Your task to perform on an android device: show emergency info Image 0: 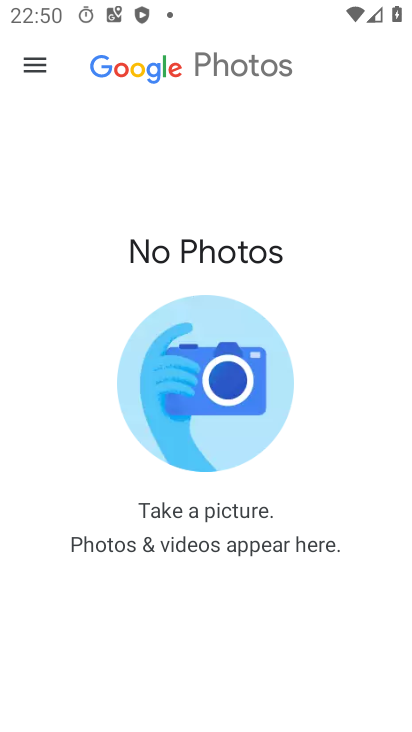
Step 0: press home button
Your task to perform on an android device: show emergency info Image 1: 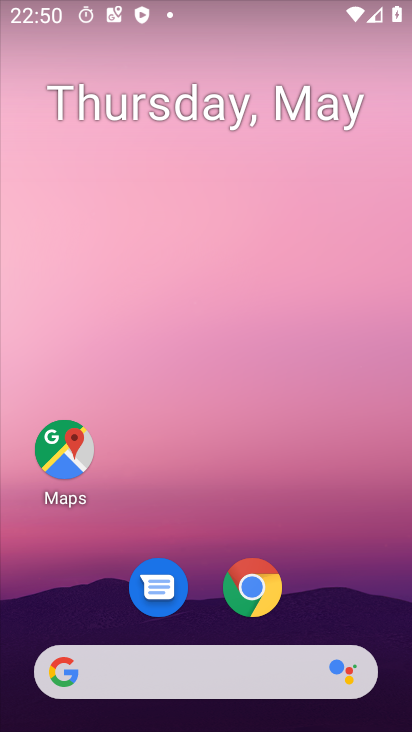
Step 1: drag from (347, 631) to (333, 10)
Your task to perform on an android device: show emergency info Image 2: 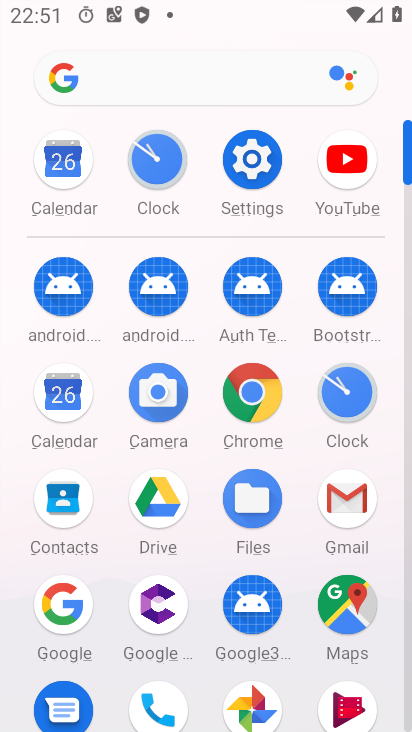
Step 2: click (248, 170)
Your task to perform on an android device: show emergency info Image 3: 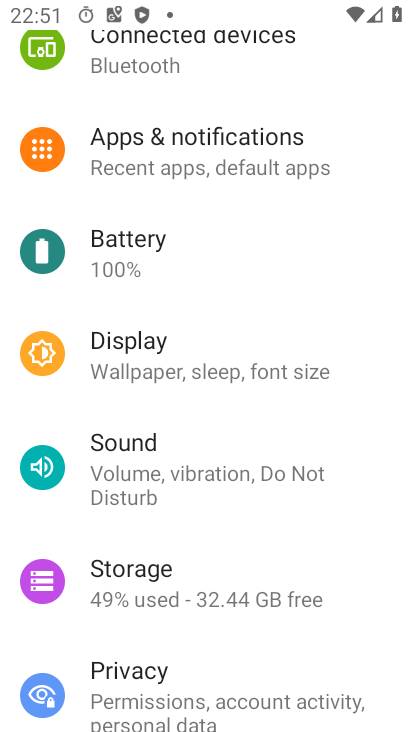
Step 3: drag from (263, 650) to (249, 54)
Your task to perform on an android device: show emergency info Image 4: 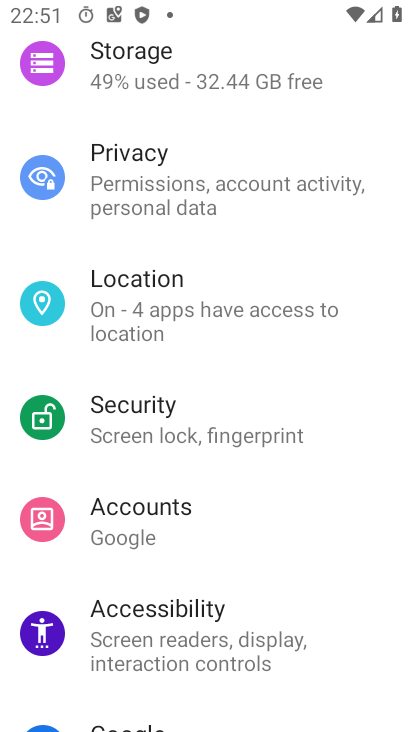
Step 4: drag from (220, 532) to (181, 29)
Your task to perform on an android device: show emergency info Image 5: 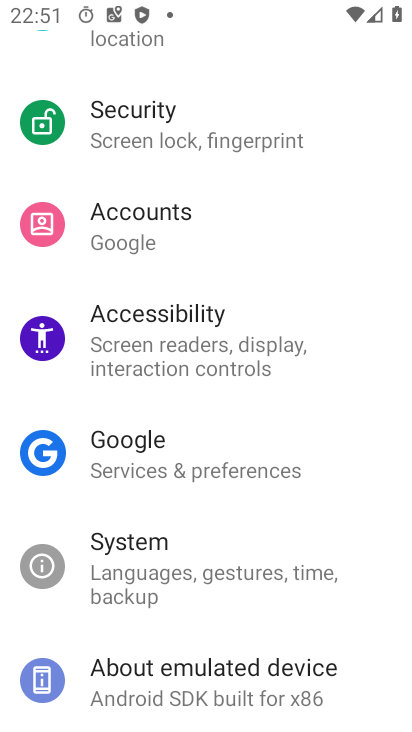
Step 5: click (161, 696)
Your task to perform on an android device: show emergency info Image 6: 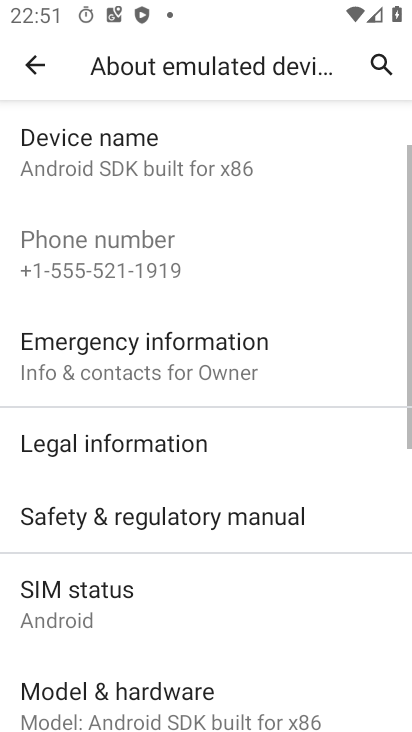
Step 6: click (141, 359)
Your task to perform on an android device: show emergency info Image 7: 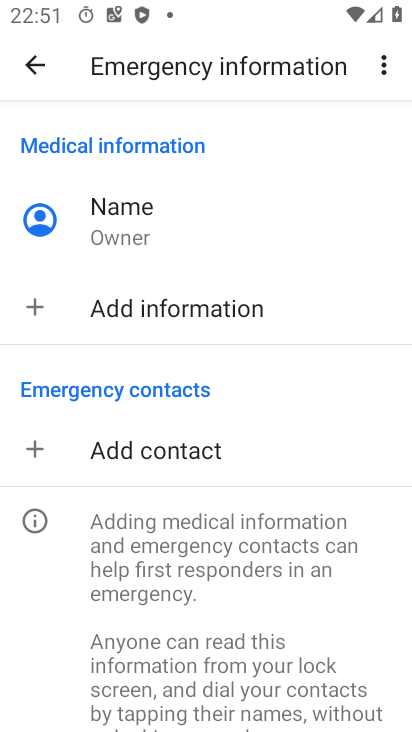
Step 7: task complete